Your task to perform on an android device: set the timer Image 0: 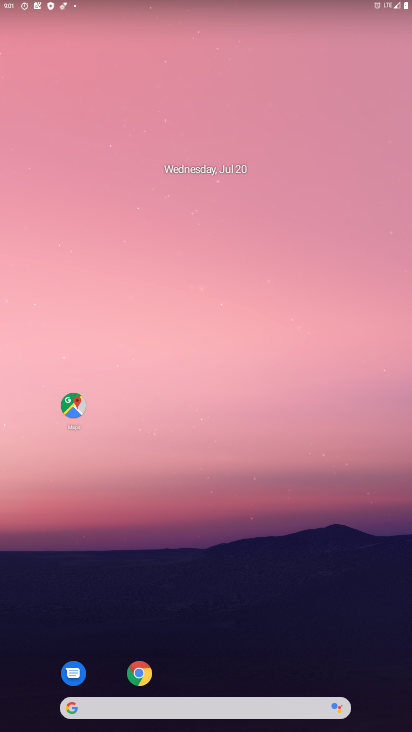
Step 0: drag from (207, 673) to (142, 200)
Your task to perform on an android device: set the timer Image 1: 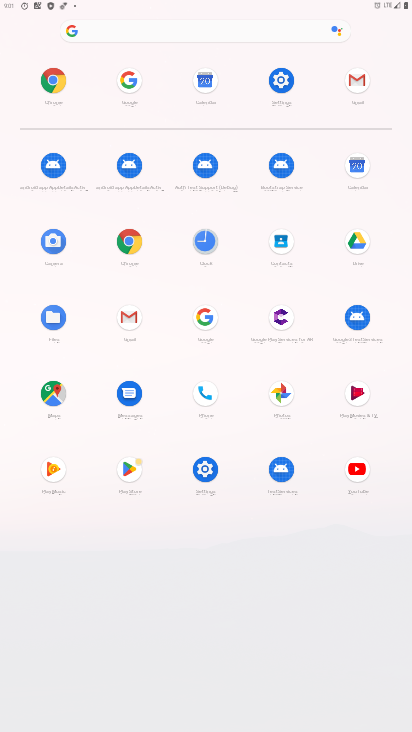
Step 1: click (208, 244)
Your task to perform on an android device: set the timer Image 2: 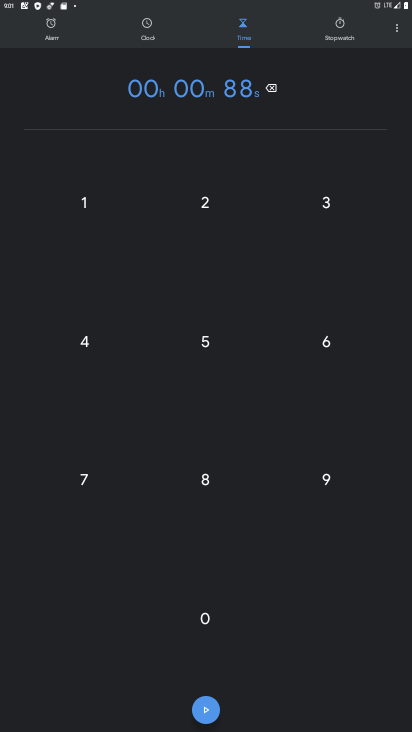
Step 2: click (200, 201)
Your task to perform on an android device: set the timer Image 3: 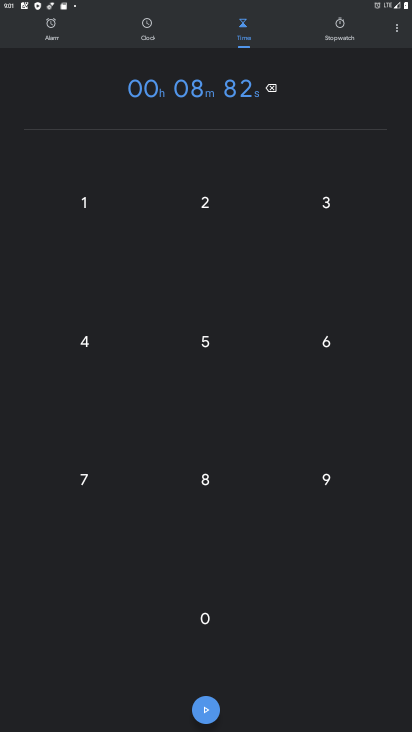
Step 3: task complete